Your task to perform on an android device: open a new tab in the chrome app Image 0: 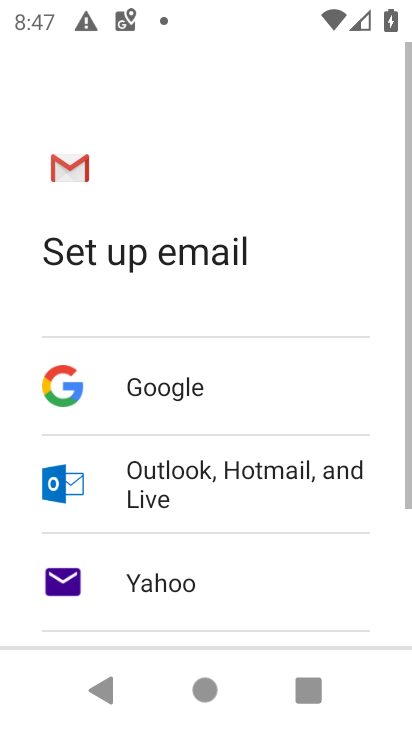
Step 0: press home button
Your task to perform on an android device: open a new tab in the chrome app Image 1: 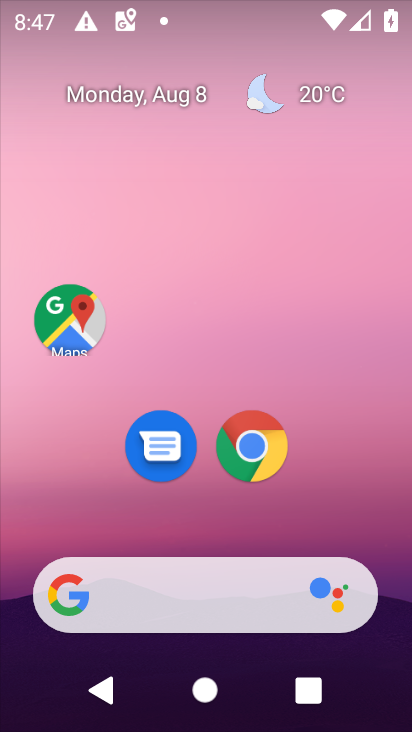
Step 1: click (253, 446)
Your task to perform on an android device: open a new tab in the chrome app Image 2: 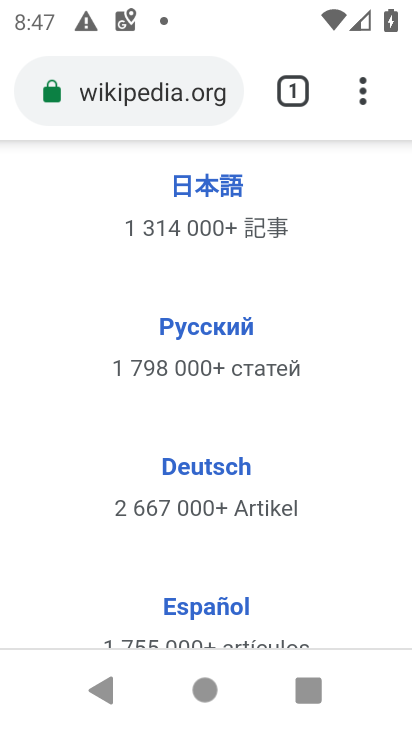
Step 2: click (357, 104)
Your task to perform on an android device: open a new tab in the chrome app Image 3: 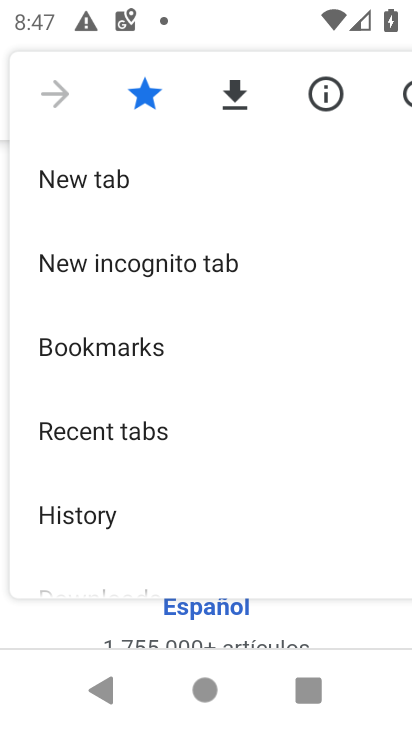
Step 3: click (85, 183)
Your task to perform on an android device: open a new tab in the chrome app Image 4: 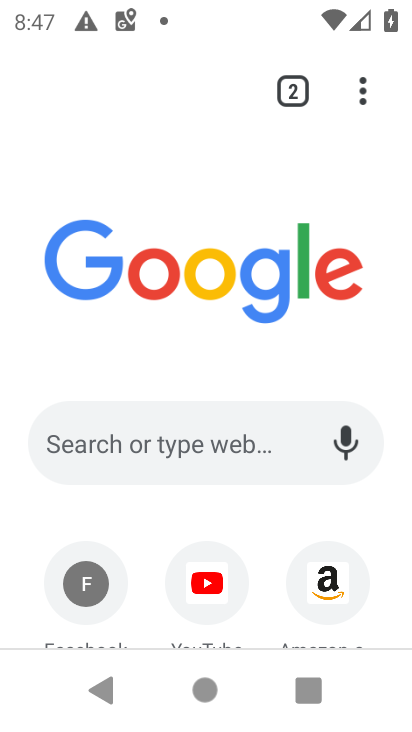
Step 4: task complete